Your task to perform on an android device: toggle notification dots Image 0: 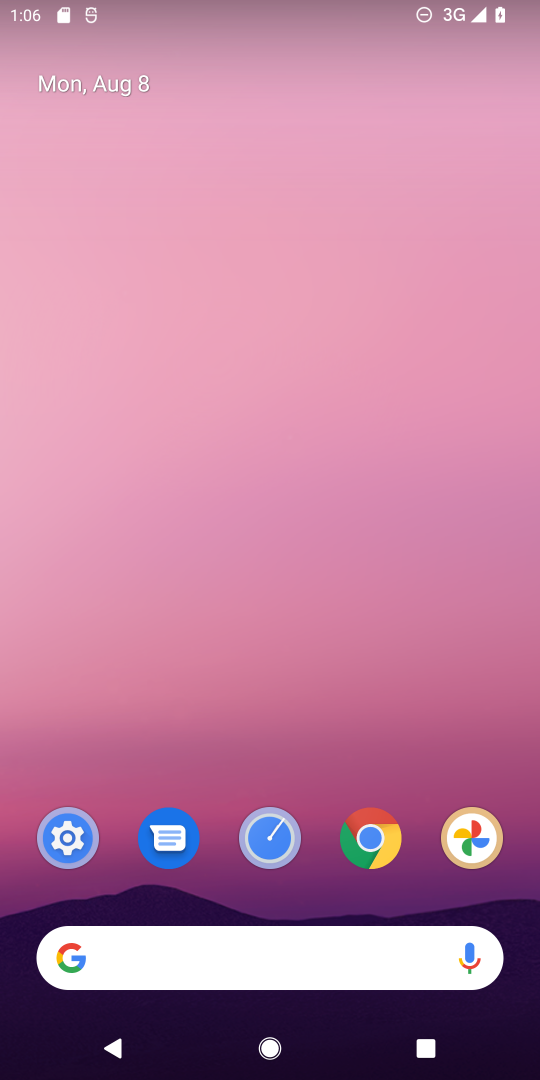
Step 0: press home button
Your task to perform on an android device: toggle notification dots Image 1: 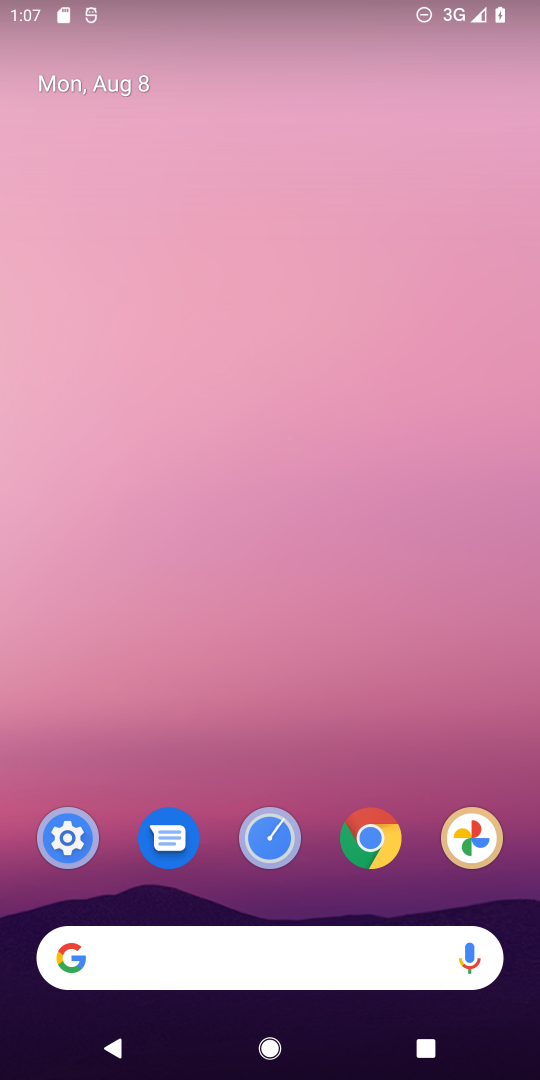
Step 1: click (67, 827)
Your task to perform on an android device: toggle notification dots Image 2: 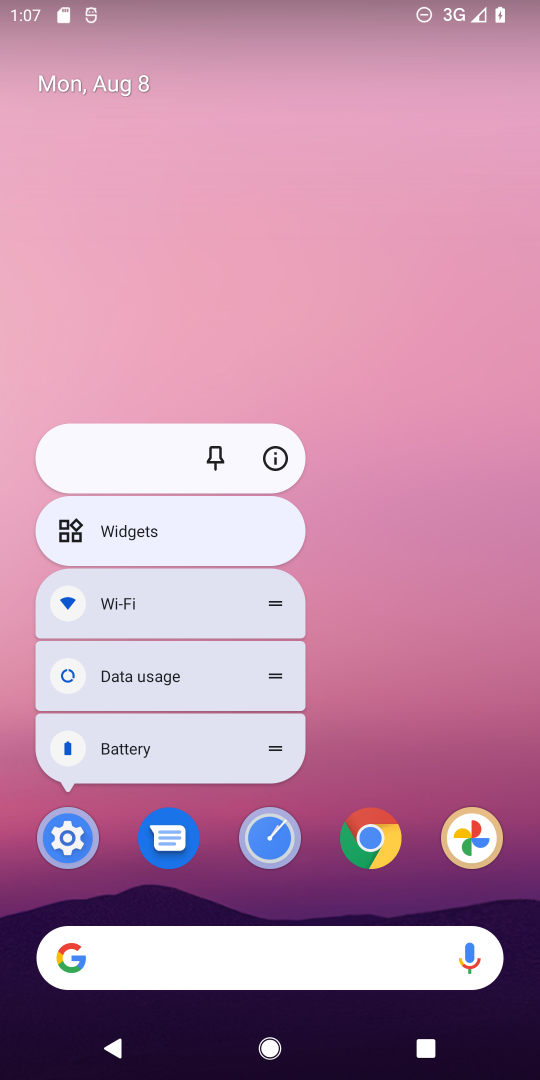
Step 2: click (68, 834)
Your task to perform on an android device: toggle notification dots Image 3: 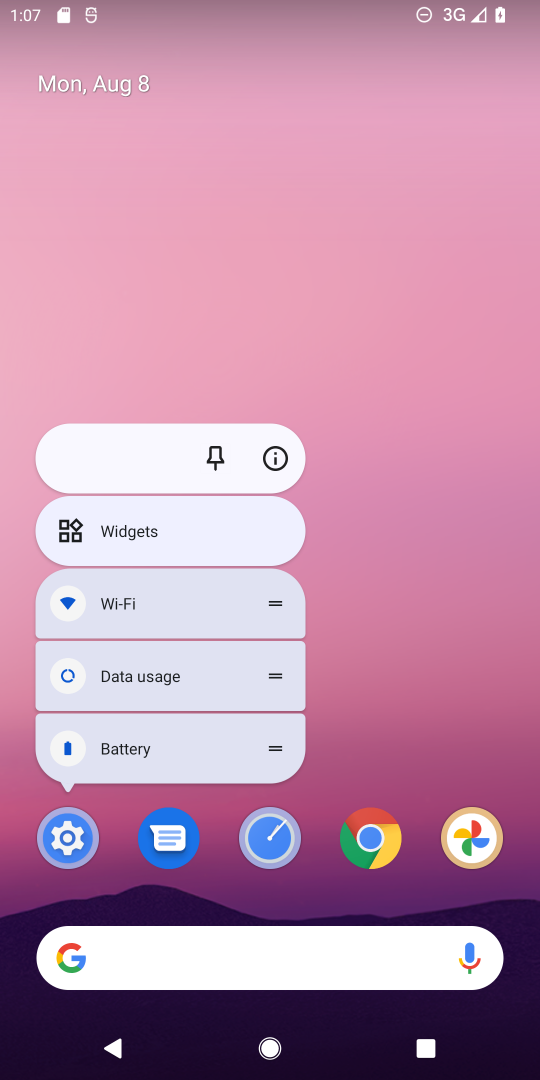
Step 3: click (71, 832)
Your task to perform on an android device: toggle notification dots Image 4: 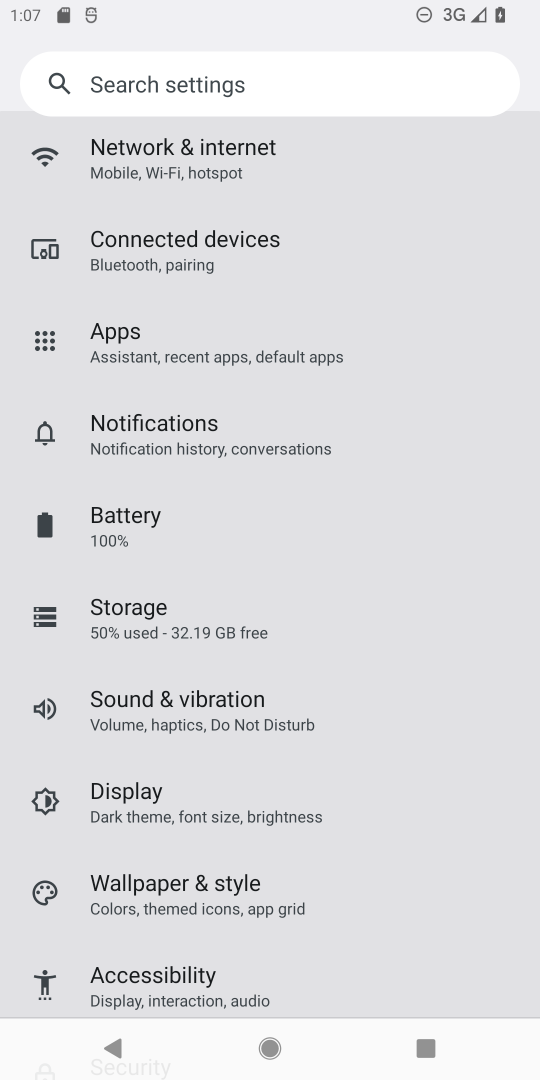
Step 4: click (134, 434)
Your task to perform on an android device: toggle notification dots Image 5: 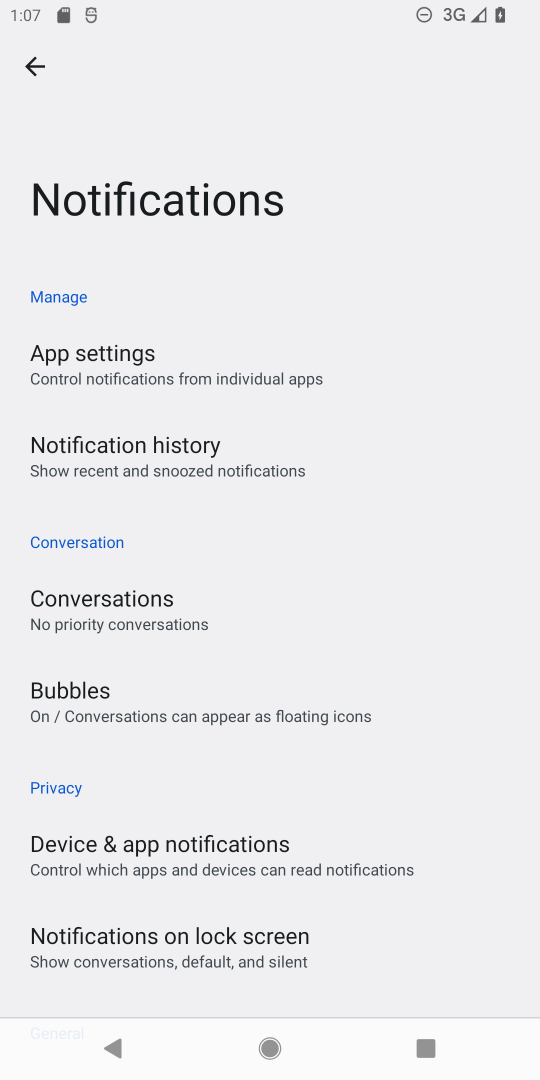
Step 5: drag from (363, 814) to (341, 169)
Your task to perform on an android device: toggle notification dots Image 6: 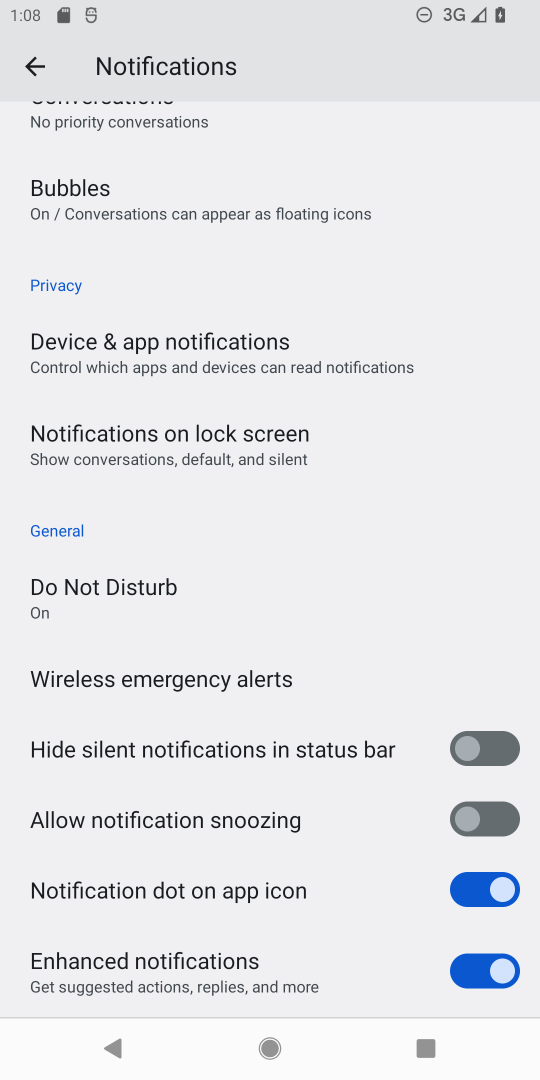
Step 6: drag from (403, 874) to (403, 289)
Your task to perform on an android device: toggle notification dots Image 7: 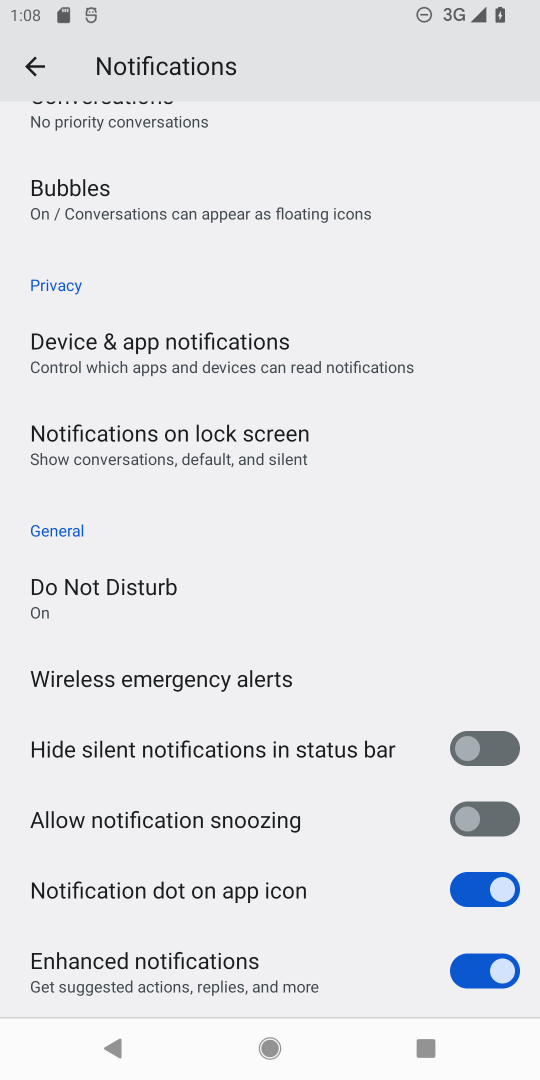
Step 7: click (500, 895)
Your task to perform on an android device: toggle notification dots Image 8: 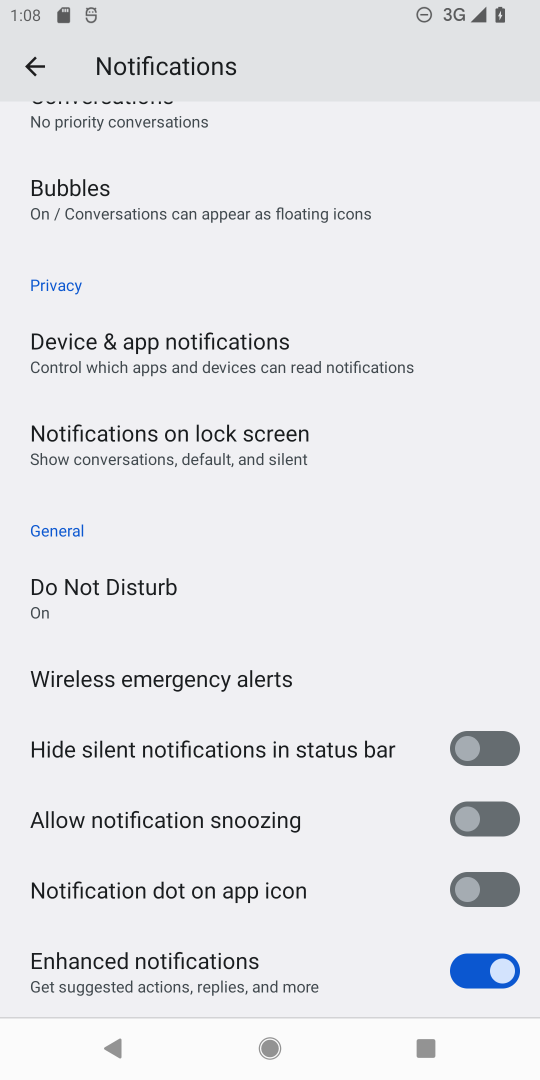
Step 8: task complete